Your task to perform on an android device: Open Youtube and go to the subscriptions tab Image 0: 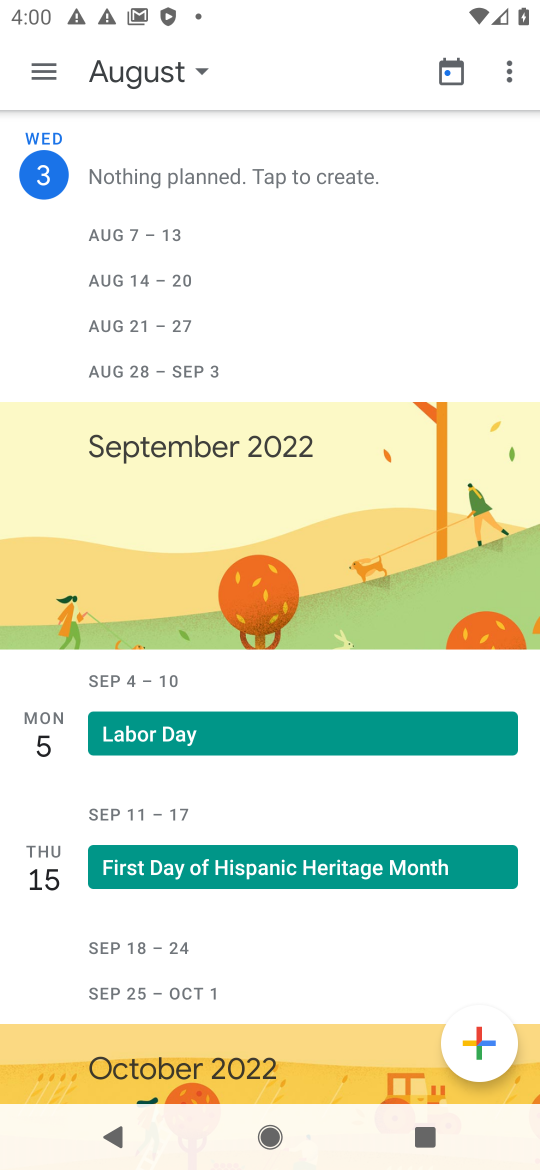
Step 0: press home button
Your task to perform on an android device: Open Youtube and go to the subscriptions tab Image 1: 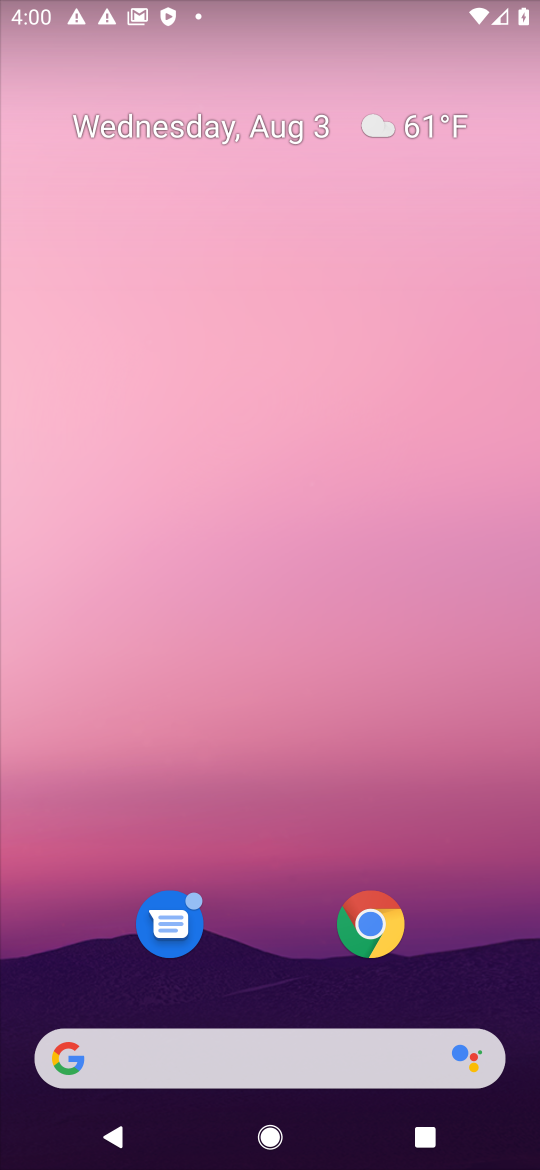
Step 1: drag from (280, 401) to (280, 282)
Your task to perform on an android device: Open Youtube and go to the subscriptions tab Image 2: 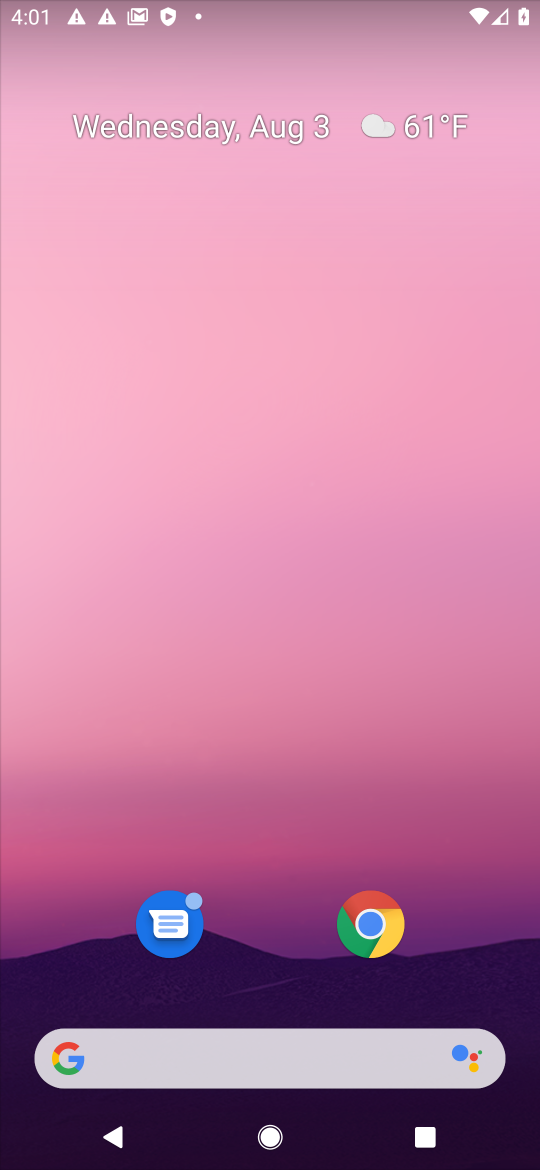
Step 2: drag from (243, 824) to (243, 221)
Your task to perform on an android device: Open Youtube and go to the subscriptions tab Image 3: 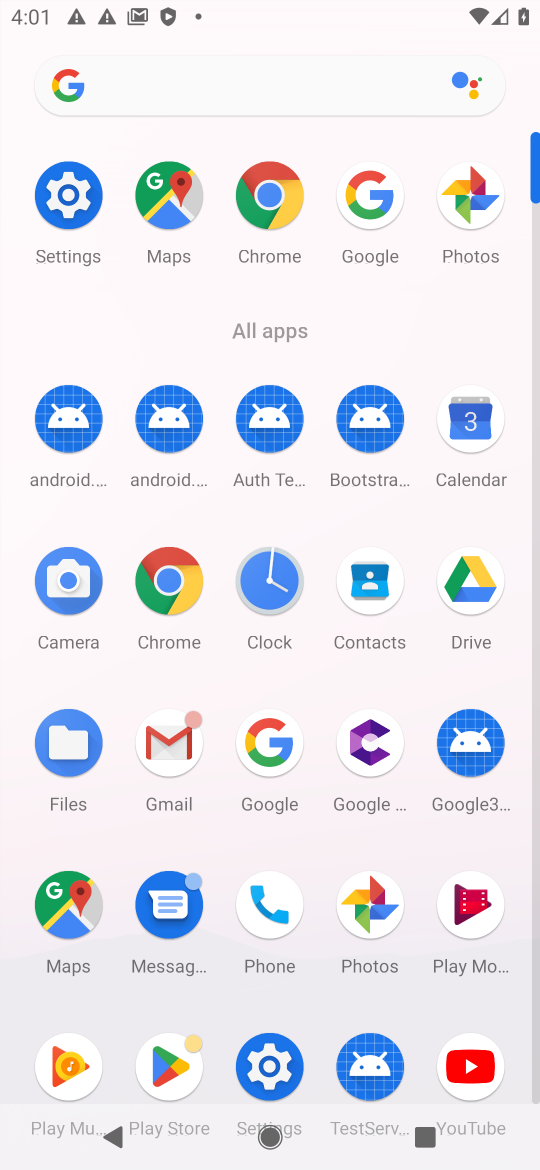
Step 3: click (469, 1048)
Your task to perform on an android device: Open Youtube and go to the subscriptions tab Image 4: 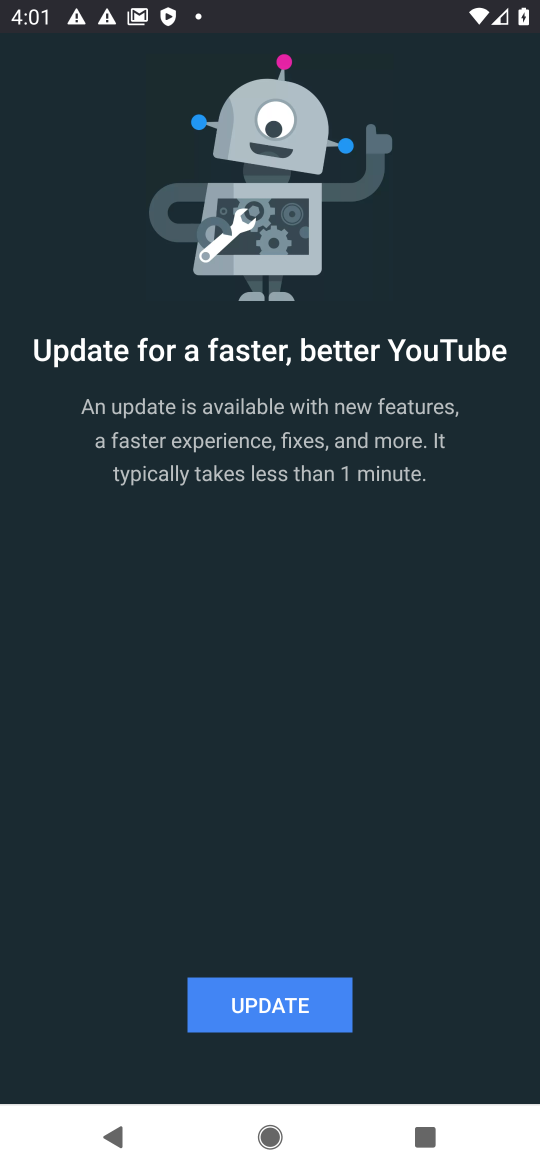
Step 4: click (301, 997)
Your task to perform on an android device: Open Youtube and go to the subscriptions tab Image 5: 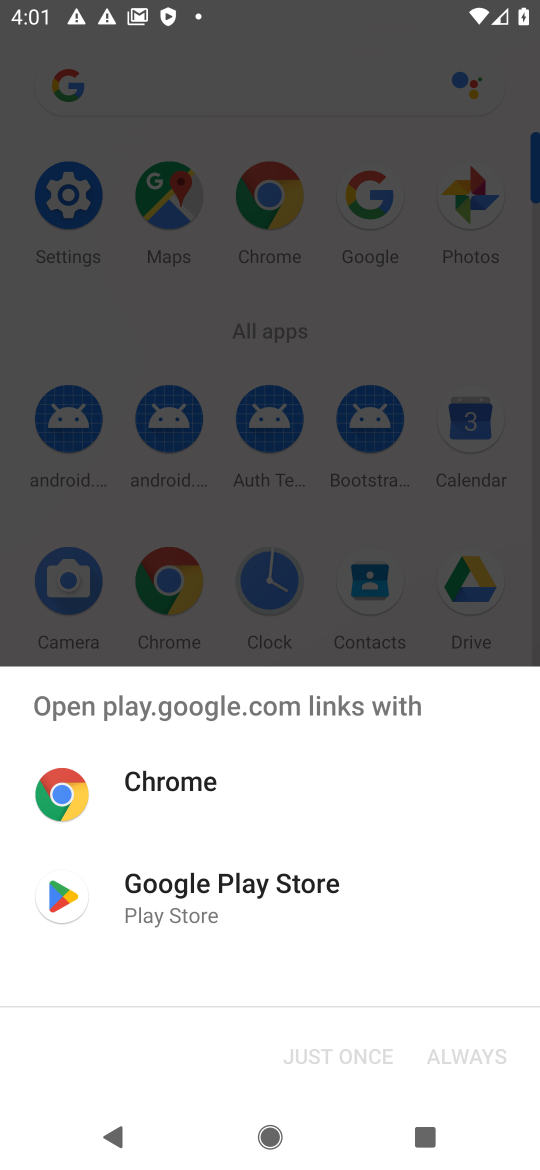
Step 5: click (148, 907)
Your task to perform on an android device: Open Youtube and go to the subscriptions tab Image 6: 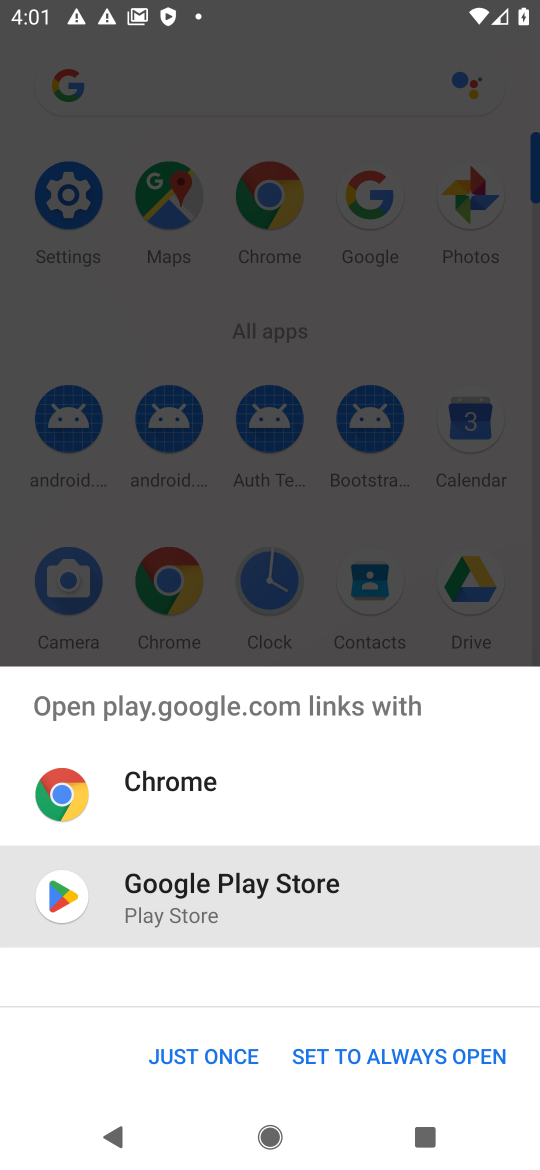
Step 6: click (230, 1077)
Your task to perform on an android device: Open Youtube and go to the subscriptions tab Image 7: 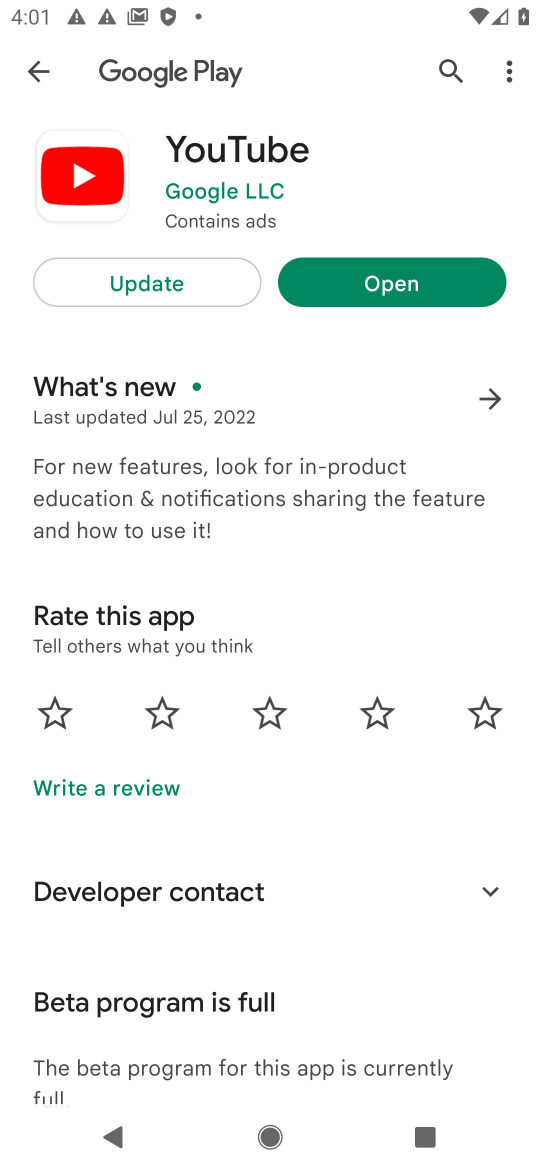
Step 7: click (178, 286)
Your task to perform on an android device: Open Youtube and go to the subscriptions tab Image 8: 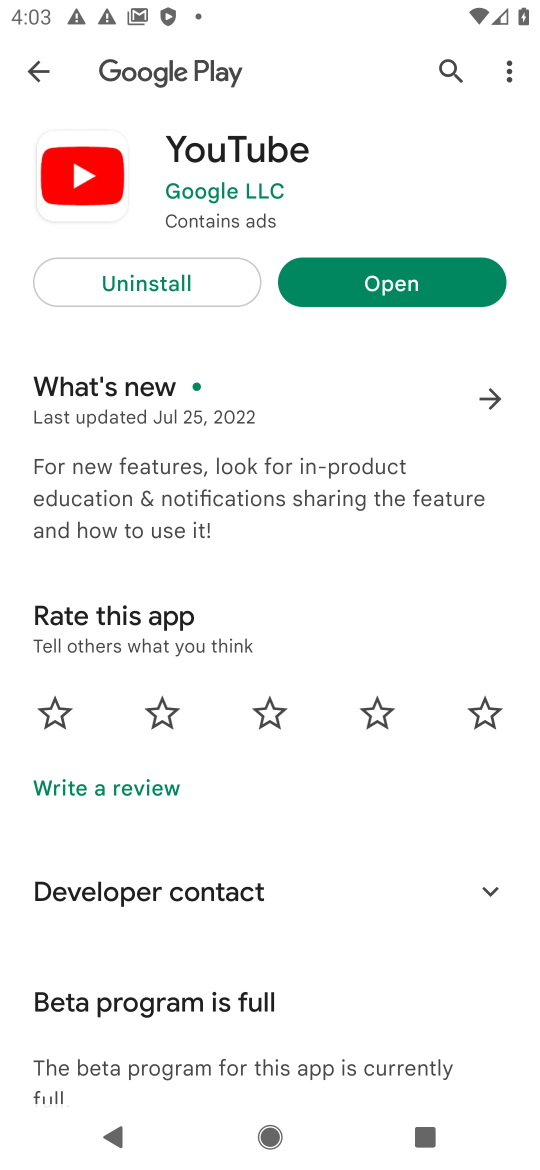
Step 8: click (401, 281)
Your task to perform on an android device: Open Youtube and go to the subscriptions tab Image 9: 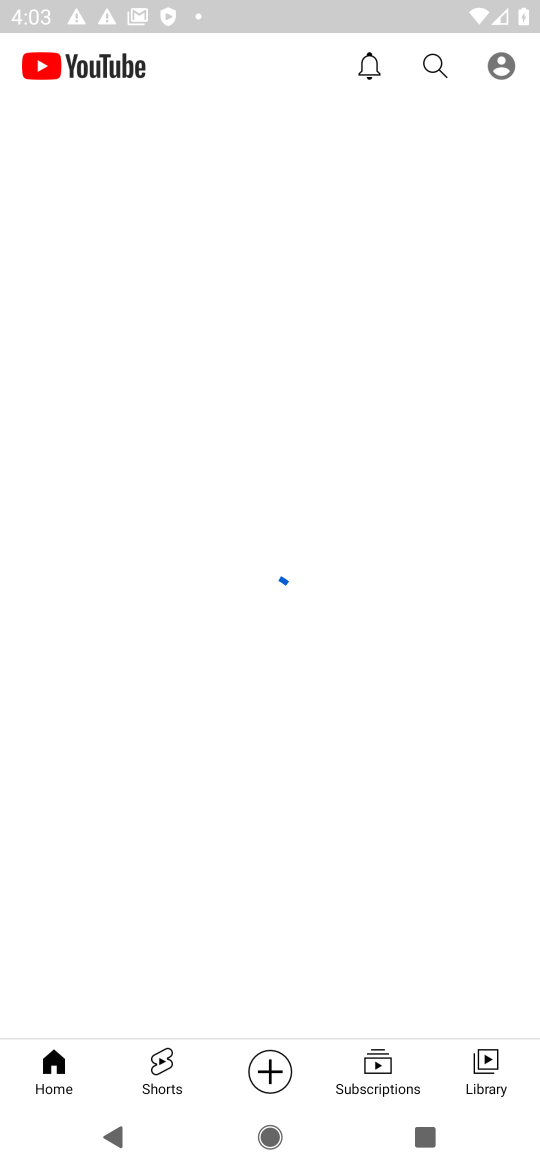
Step 9: click (383, 1049)
Your task to perform on an android device: Open Youtube and go to the subscriptions tab Image 10: 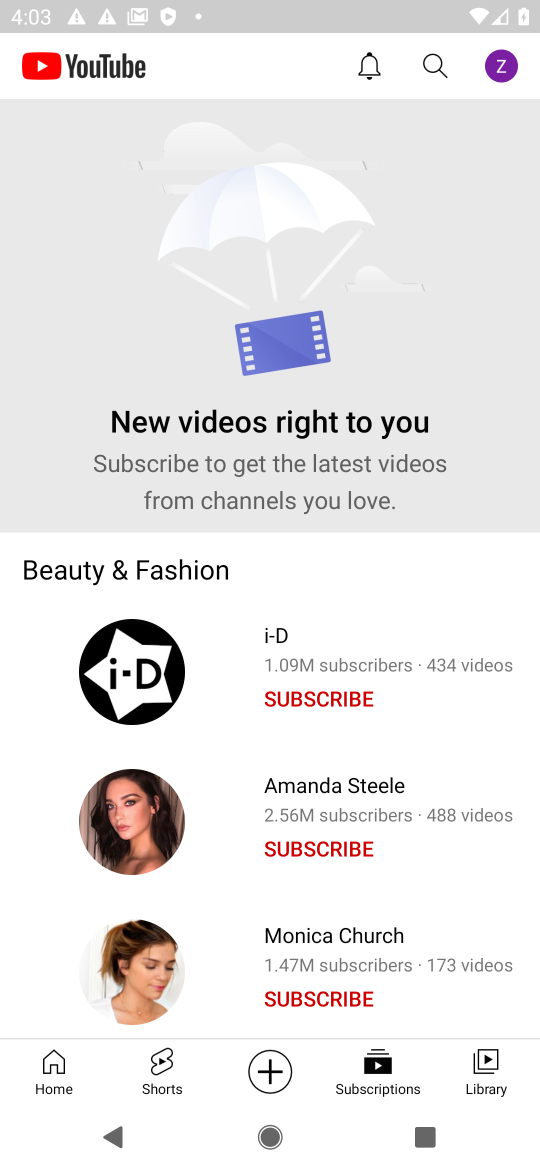
Step 10: task complete